Your task to perform on an android device: Open battery settings Image 0: 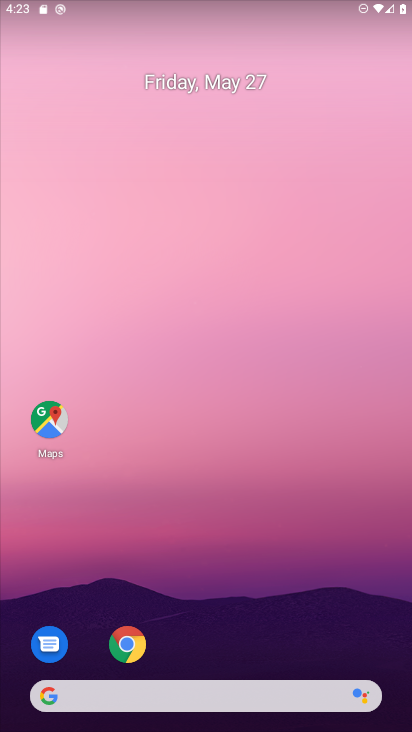
Step 0: drag from (357, 1) to (285, 593)
Your task to perform on an android device: Open battery settings Image 1: 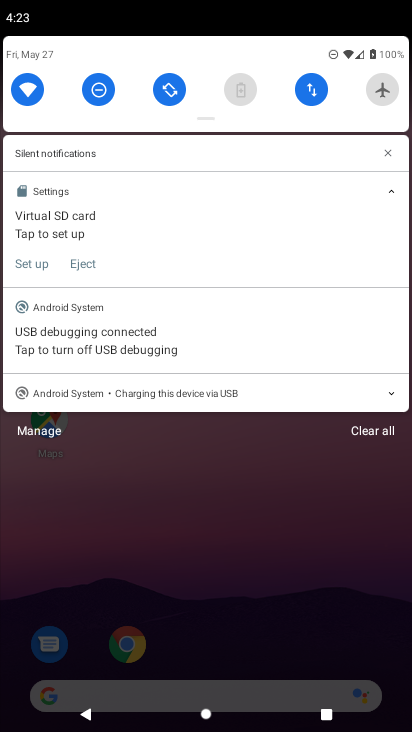
Step 1: click (245, 100)
Your task to perform on an android device: Open battery settings Image 2: 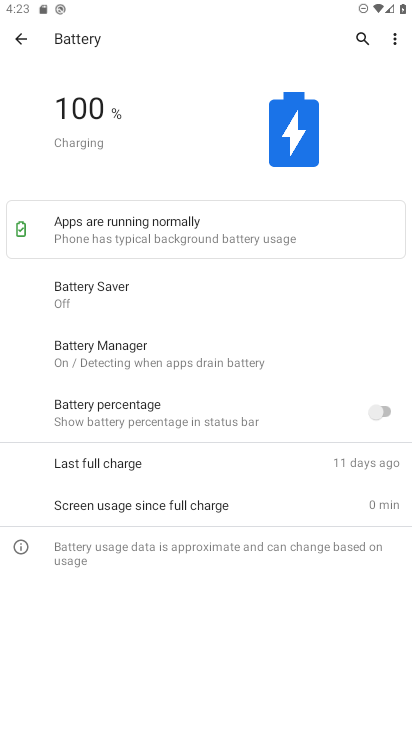
Step 2: task complete